Your task to perform on an android device: turn on wifi Image 0: 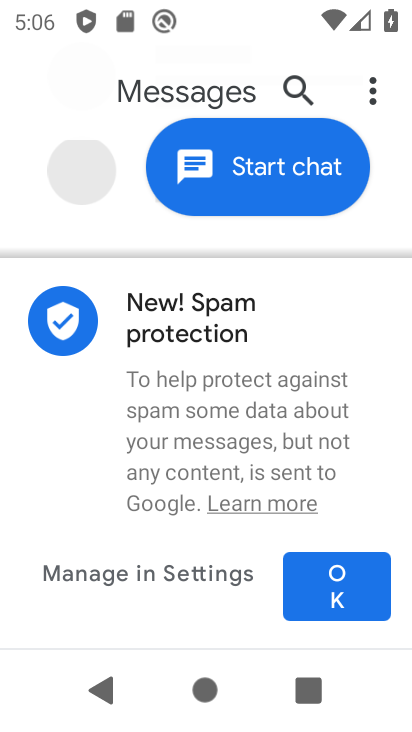
Step 0: press home button
Your task to perform on an android device: turn on wifi Image 1: 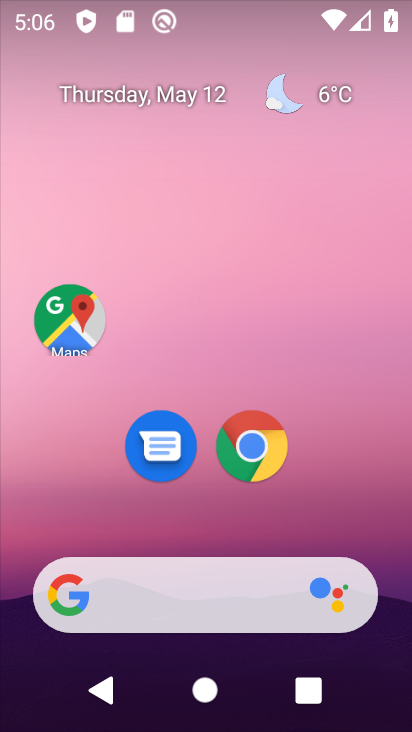
Step 1: task complete